Your task to perform on an android device: turn off picture-in-picture Image 0: 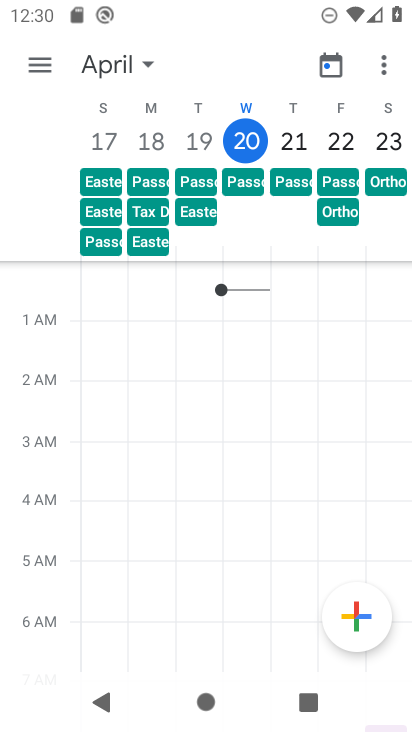
Step 0: press home button
Your task to perform on an android device: turn off picture-in-picture Image 1: 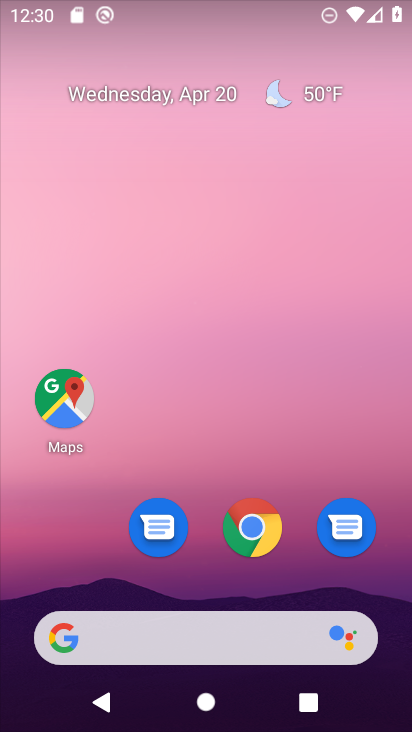
Step 1: click (251, 529)
Your task to perform on an android device: turn off picture-in-picture Image 2: 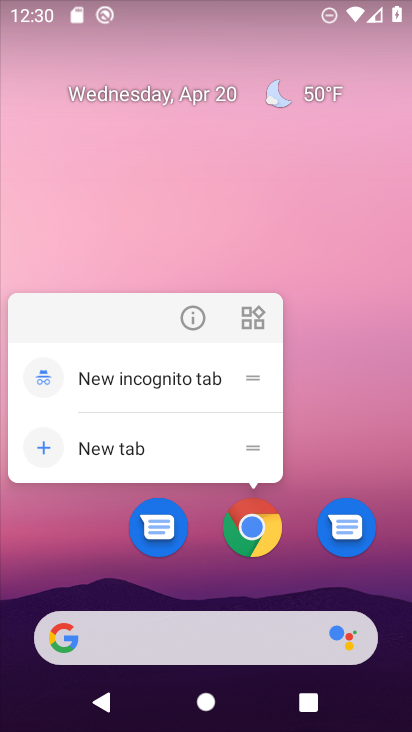
Step 2: click (195, 319)
Your task to perform on an android device: turn off picture-in-picture Image 3: 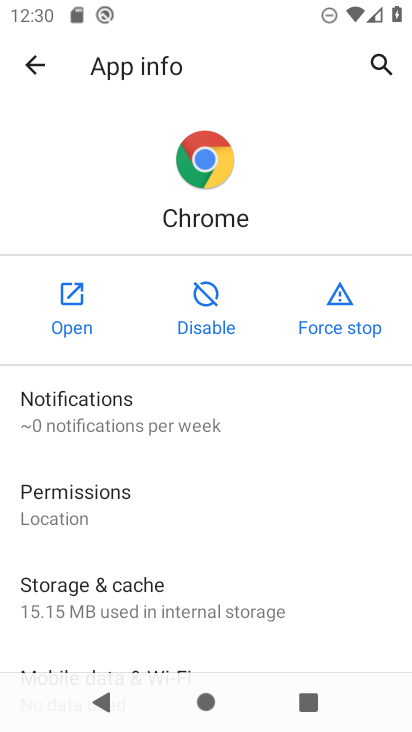
Step 3: drag from (142, 586) to (124, 137)
Your task to perform on an android device: turn off picture-in-picture Image 4: 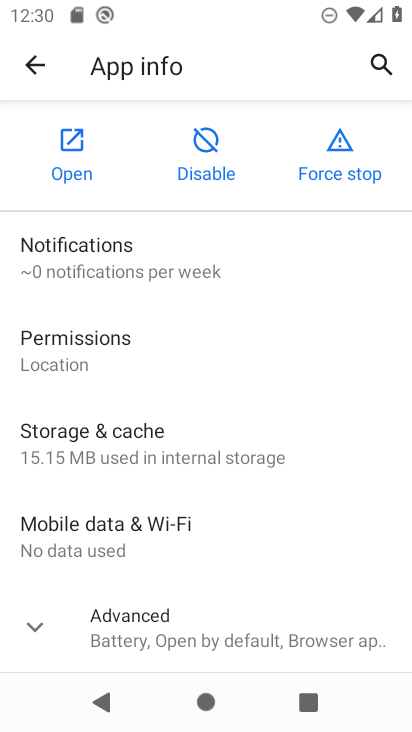
Step 4: click (33, 638)
Your task to perform on an android device: turn off picture-in-picture Image 5: 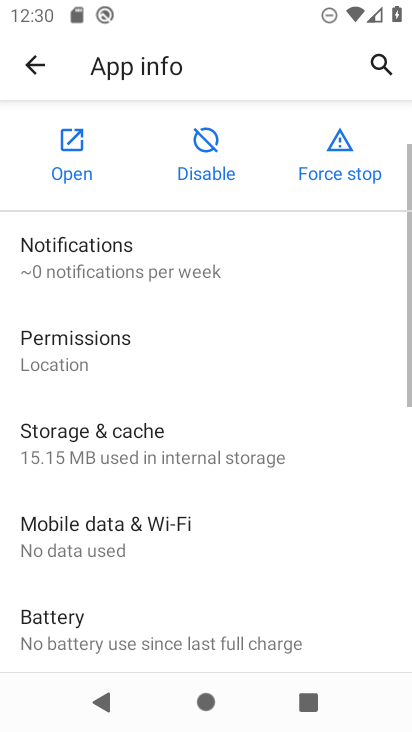
Step 5: drag from (187, 613) to (145, 134)
Your task to perform on an android device: turn off picture-in-picture Image 6: 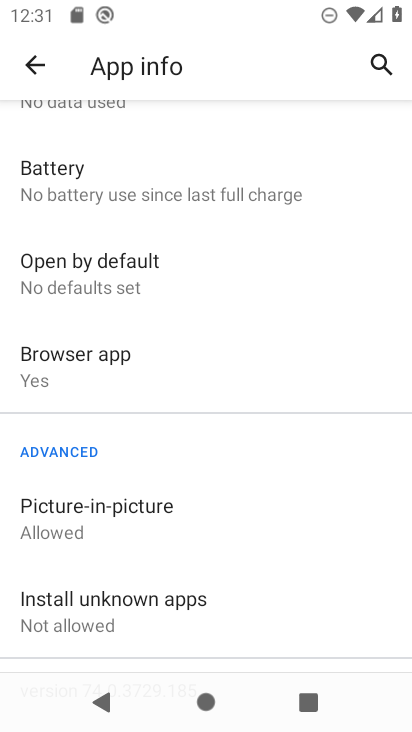
Step 6: click (64, 516)
Your task to perform on an android device: turn off picture-in-picture Image 7: 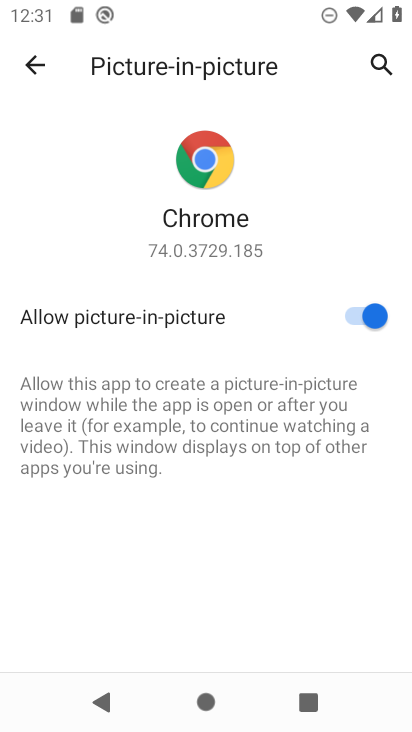
Step 7: click (365, 322)
Your task to perform on an android device: turn off picture-in-picture Image 8: 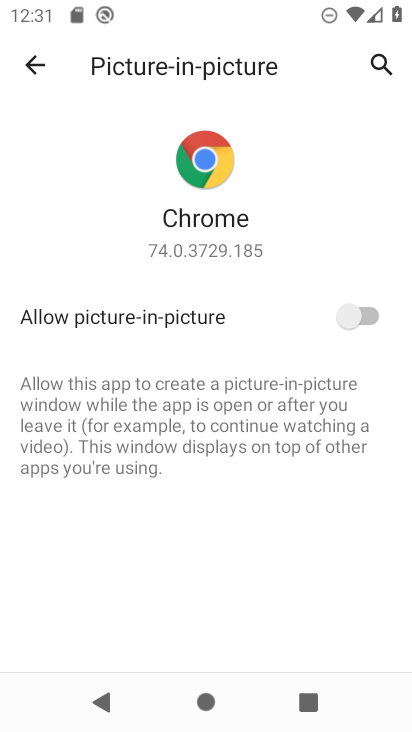
Step 8: task complete